Your task to perform on an android device: Open Android settings Image 0: 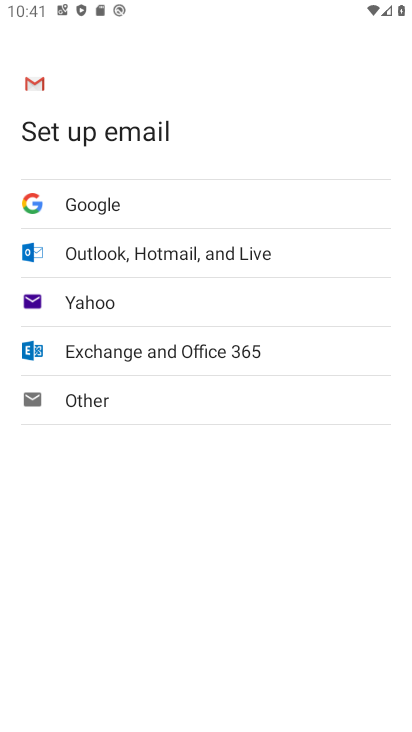
Step 0: press home button
Your task to perform on an android device: Open Android settings Image 1: 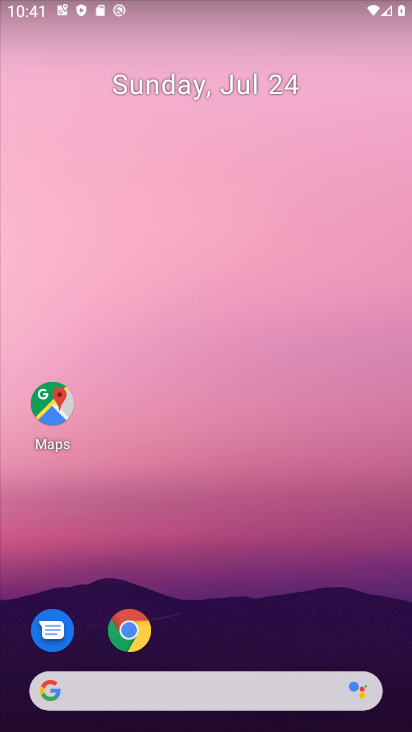
Step 1: drag from (240, 638) to (248, 285)
Your task to perform on an android device: Open Android settings Image 2: 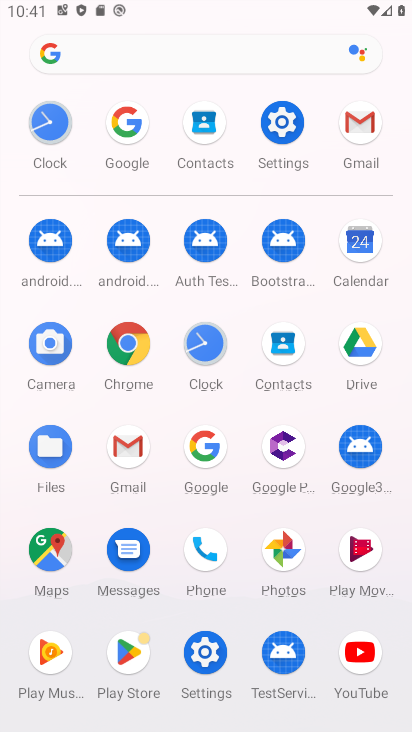
Step 2: click (296, 139)
Your task to perform on an android device: Open Android settings Image 3: 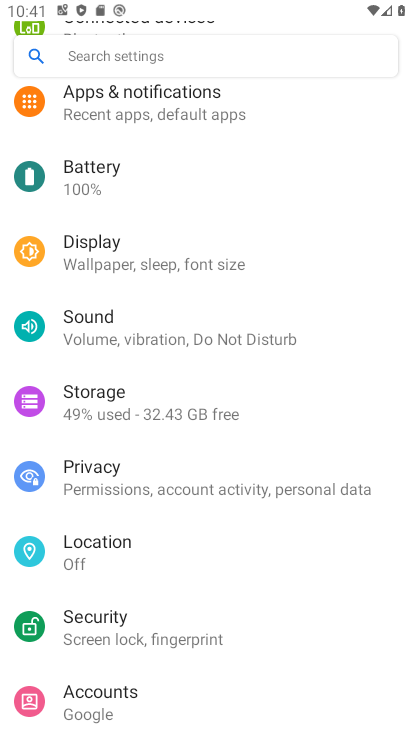
Step 3: task complete